Your task to perform on an android device: open device folders in google photos Image 0: 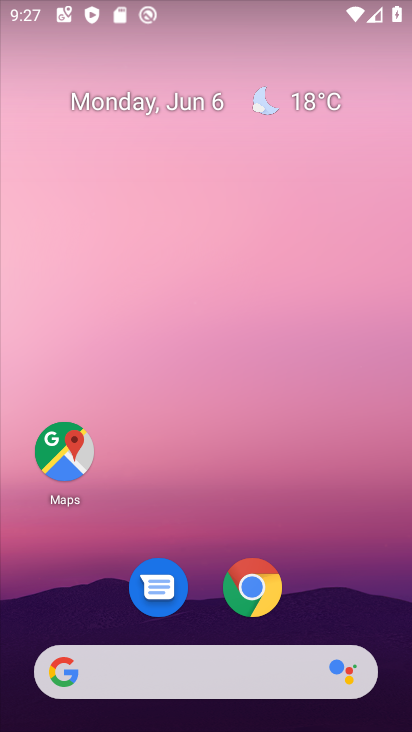
Step 0: drag from (321, 572) to (302, 99)
Your task to perform on an android device: open device folders in google photos Image 1: 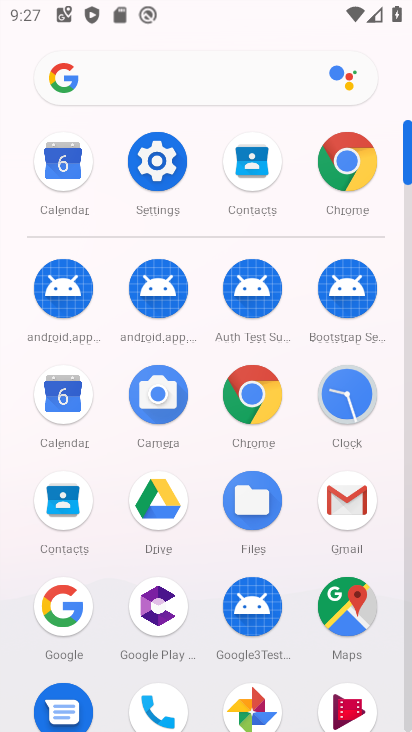
Step 1: click (267, 705)
Your task to perform on an android device: open device folders in google photos Image 2: 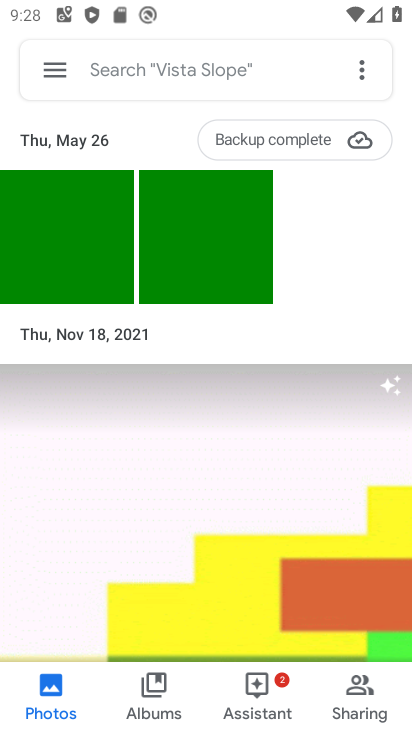
Step 2: click (49, 70)
Your task to perform on an android device: open device folders in google photos Image 3: 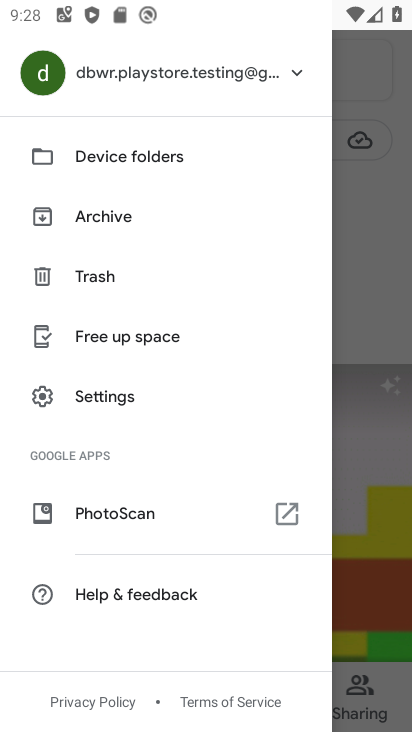
Step 3: click (116, 155)
Your task to perform on an android device: open device folders in google photos Image 4: 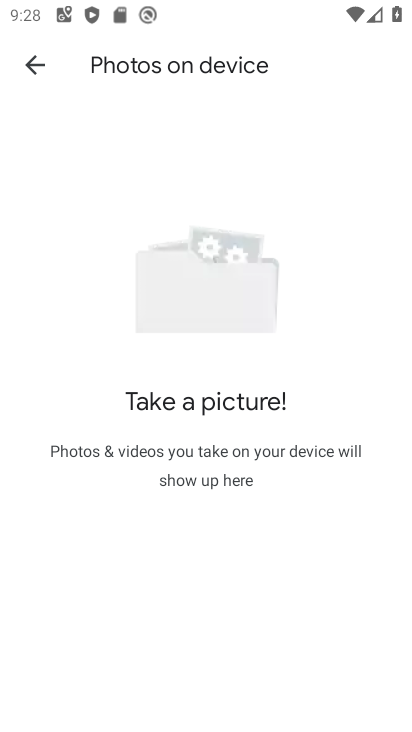
Step 4: task complete